Your task to perform on an android device: all mails in gmail Image 0: 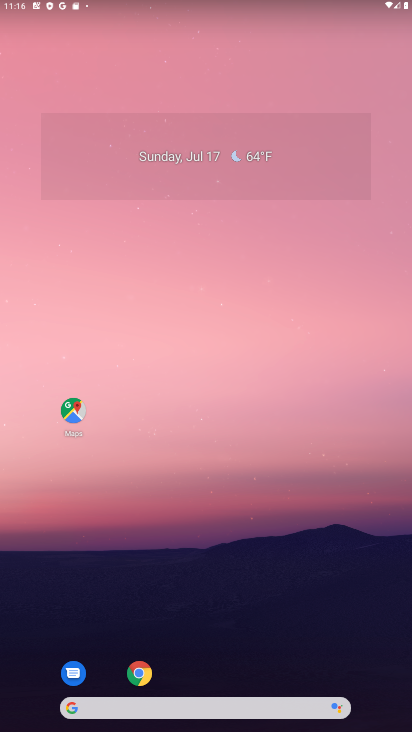
Step 0: drag from (215, 678) to (218, 168)
Your task to perform on an android device: all mails in gmail Image 1: 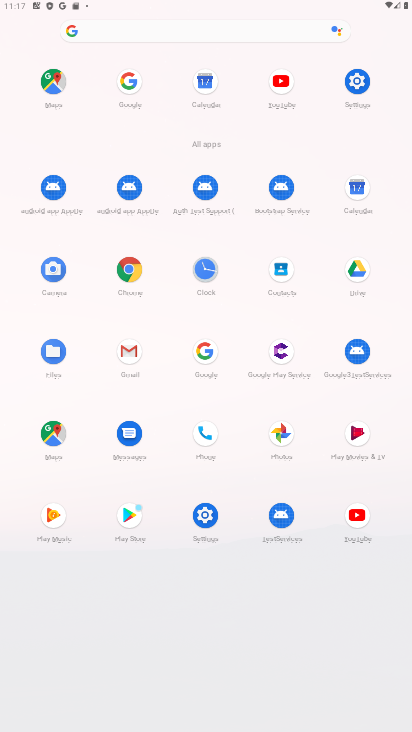
Step 1: click (132, 345)
Your task to perform on an android device: all mails in gmail Image 2: 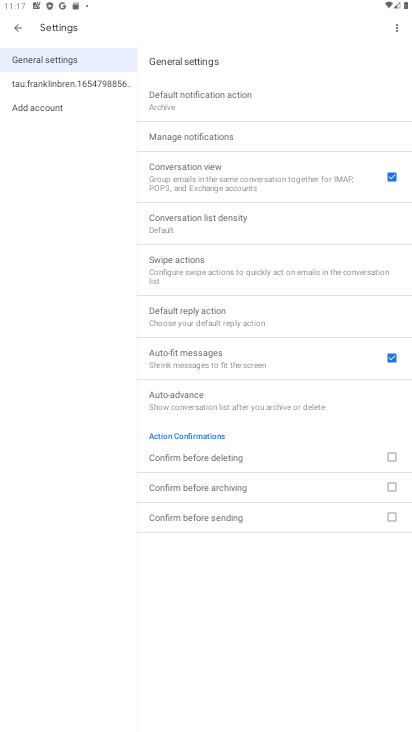
Step 2: click (67, 83)
Your task to perform on an android device: all mails in gmail Image 3: 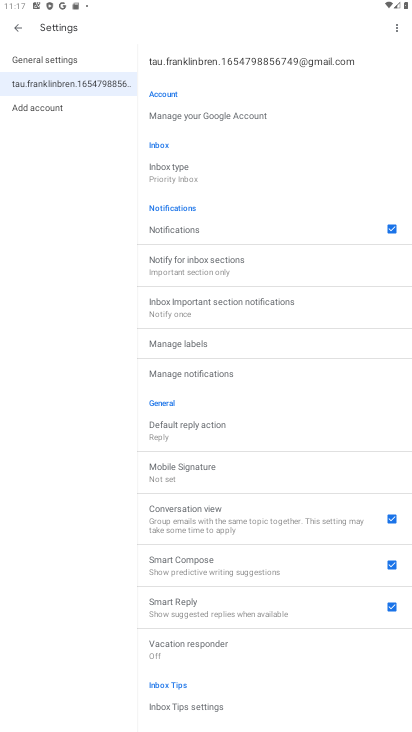
Step 3: press back button
Your task to perform on an android device: all mails in gmail Image 4: 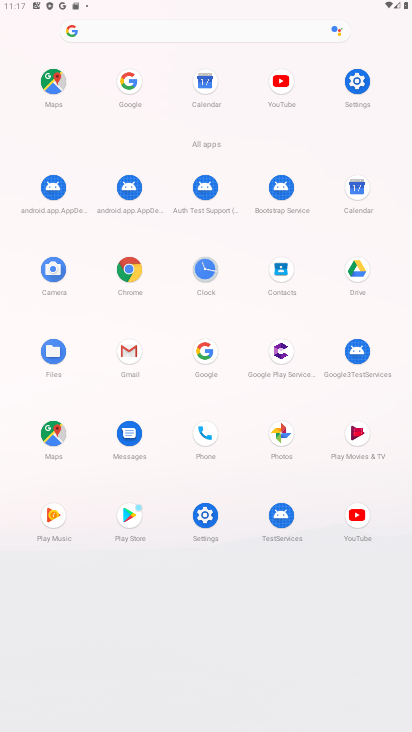
Step 4: click (132, 346)
Your task to perform on an android device: all mails in gmail Image 5: 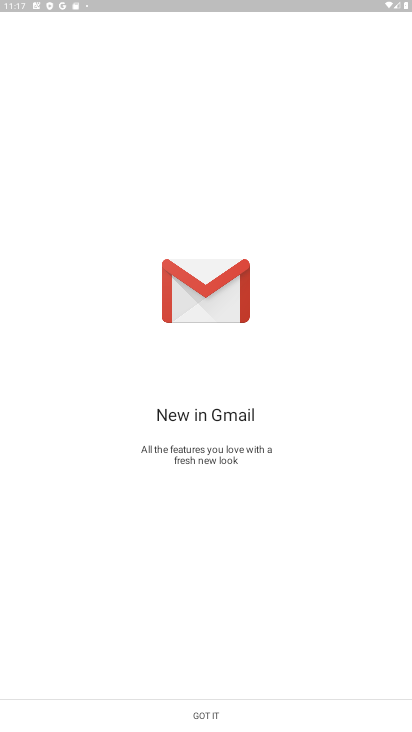
Step 5: click (185, 727)
Your task to perform on an android device: all mails in gmail Image 6: 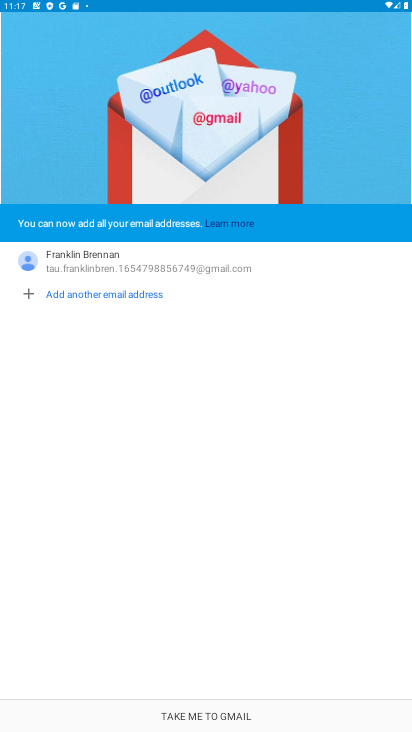
Step 6: click (199, 717)
Your task to perform on an android device: all mails in gmail Image 7: 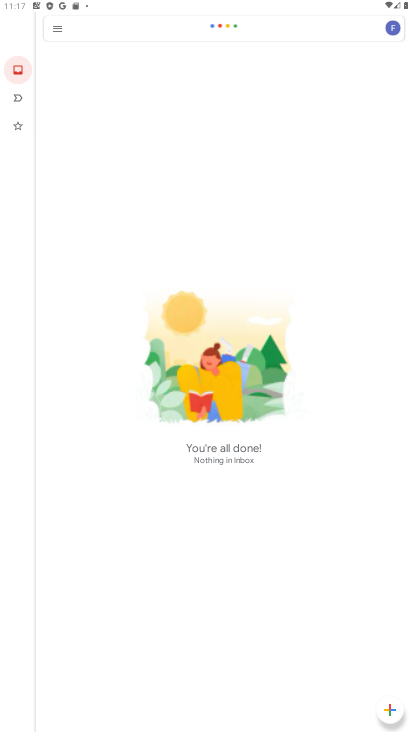
Step 7: click (55, 26)
Your task to perform on an android device: all mails in gmail Image 8: 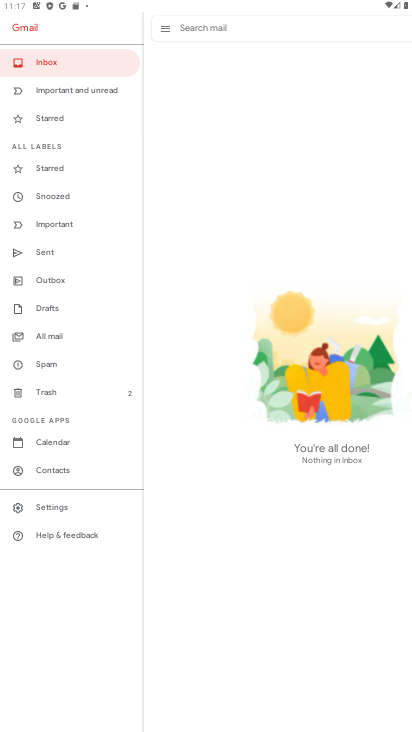
Step 8: click (45, 332)
Your task to perform on an android device: all mails in gmail Image 9: 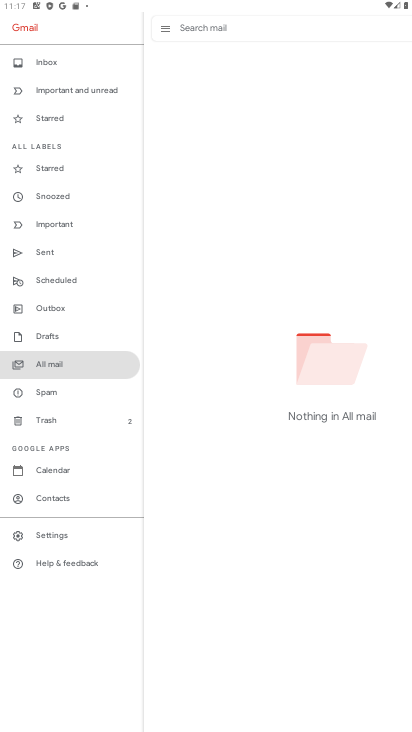
Step 9: task complete